Your task to perform on an android device: Go to privacy settings Image 0: 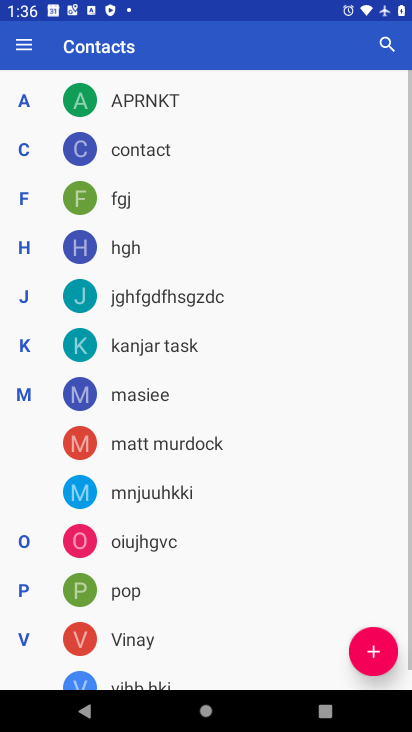
Step 0: press home button
Your task to perform on an android device: Go to privacy settings Image 1: 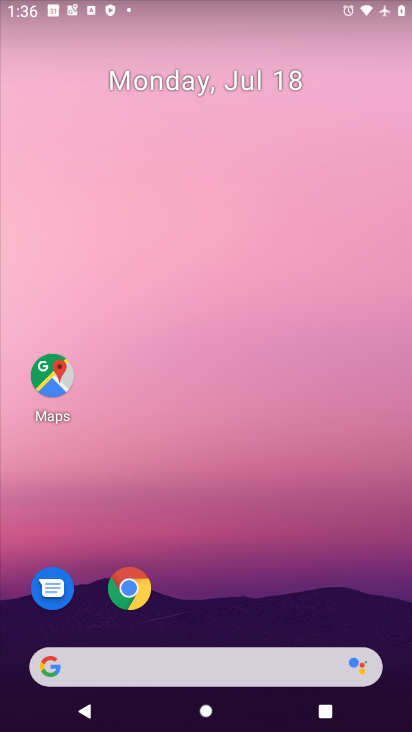
Step 1: drag from (237, 631) to (315, 163)
Your task to perform on an android device: Go to privacy settings Image 2: 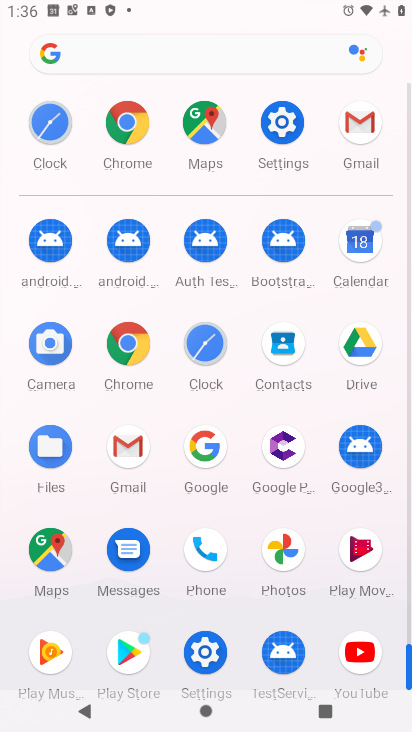
Step 2: click (289, 143)
Your task to perform on an android device: Go to privacy settings Image 3: 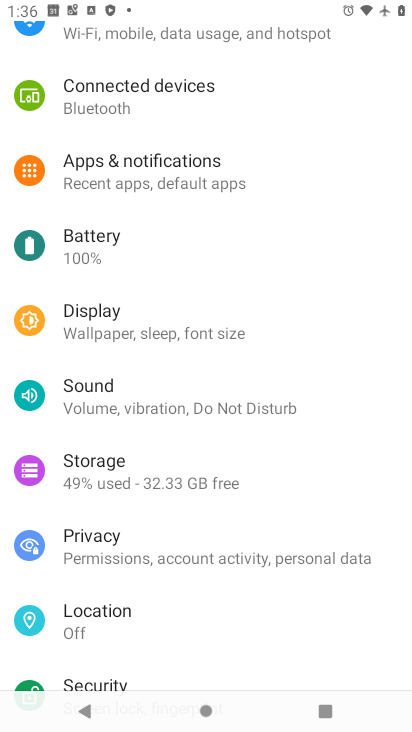
Step 3: click (139, 558)
Your task to perform on an android device: Go to privacy settings Image 4: 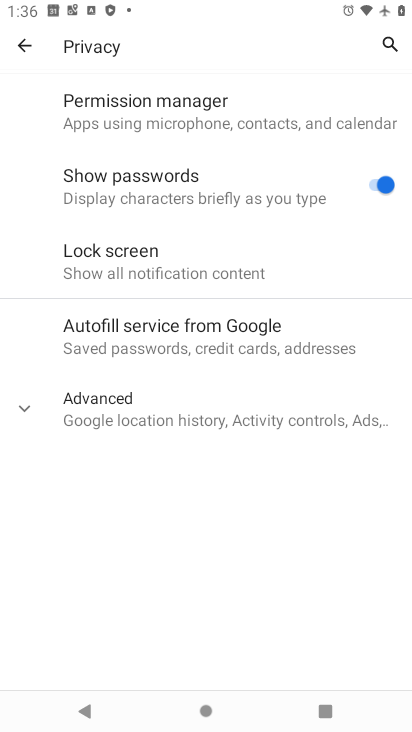
Step 4: task complete